Your task to perform on an android device: check battery use Image 0: 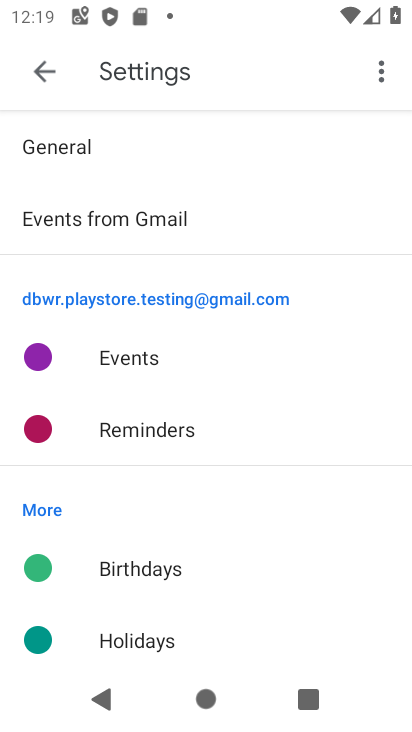
Step 0: press home button
Your task to perform on an android device: check battery use Image 1: 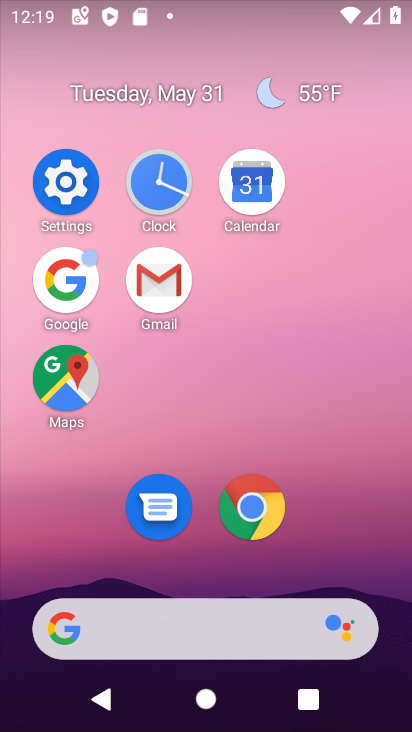
Step 1: click (76, 195)
Your task to perform on an android device: check battery use Image 2: 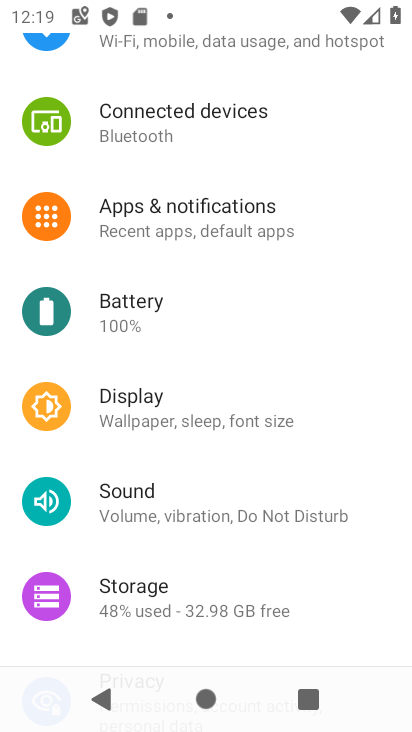
Step 2: click (180, 314)
Your task to perform on an android device: check battery use Image 3: 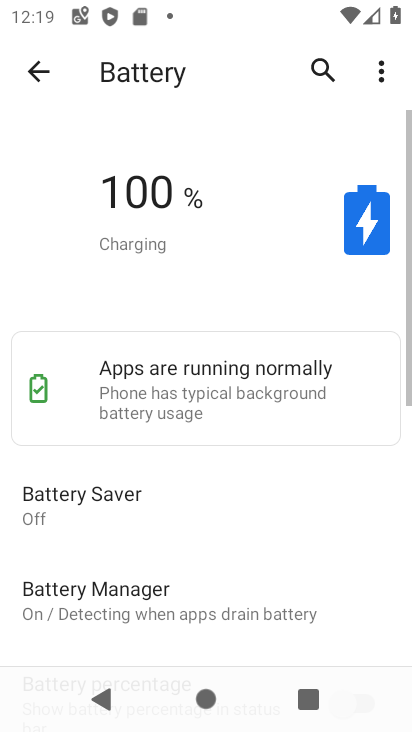
Step 3: click (388, 70)
Your task to perform on an android device: check battery use Image 4: 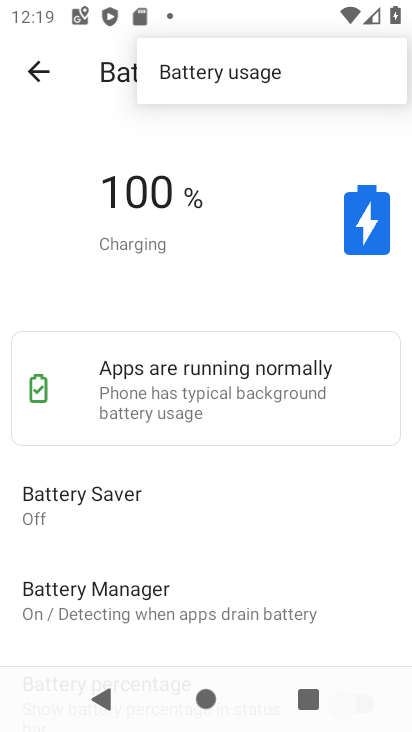
Step 4: click (232, 47)
Your task to perform on an android device: check battery use Image 5: 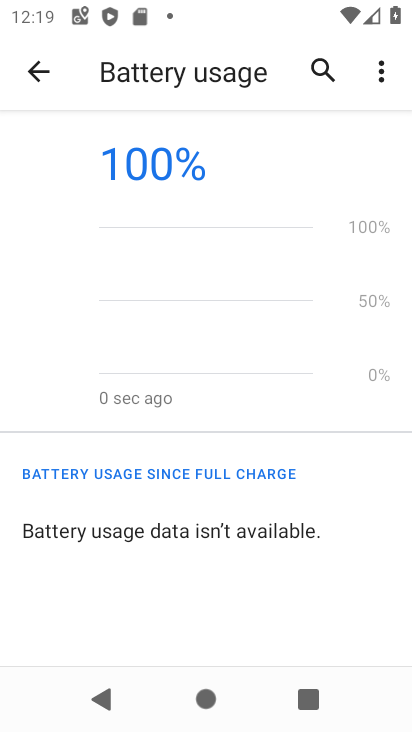
Step 5: task complete